Your task to perform on an android device: turn off airplane mode Image 0: 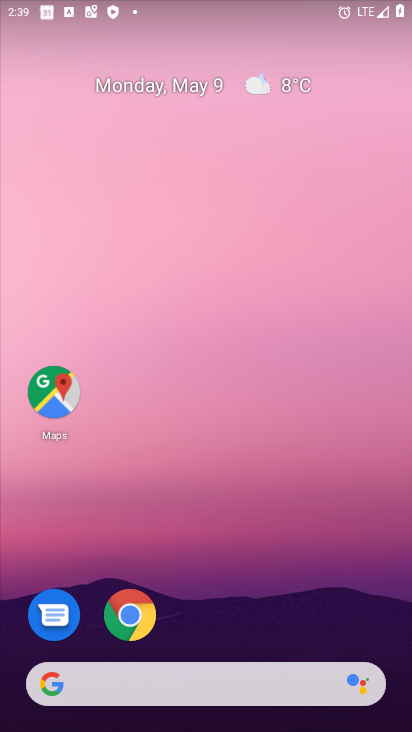
Step 0: drag from (381, 625) to (349, 81)
Your task to perform on an android device: turn off airplane mode Image 1: 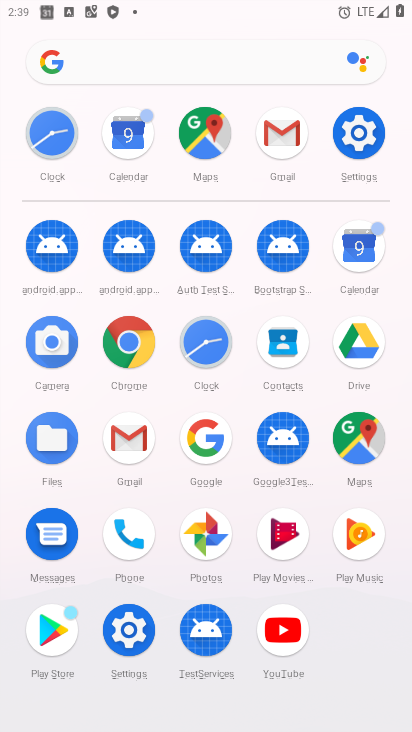
Step 1: click (129, 629)
Your task to perform on an android device: turn off airplane mode Image 2: 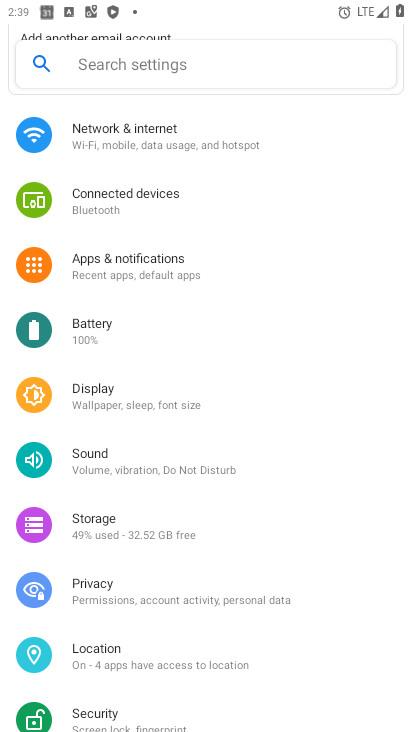
Step 2: click (124, 137)
Your task to perform on an android device: turn off airplane mode Image 3: 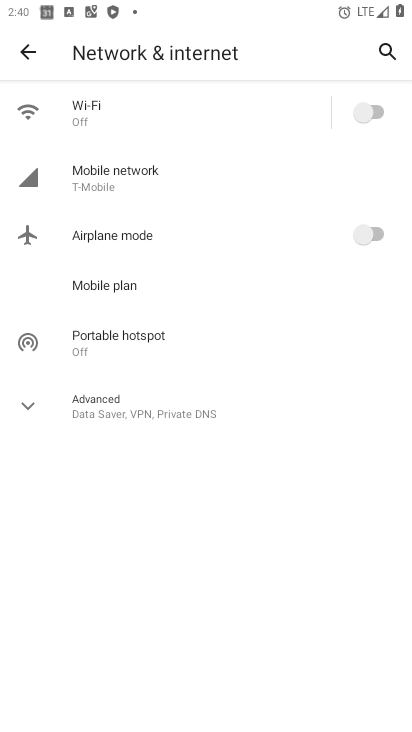
Step 3: task complete